Your task to perform on an android device: turn notification dots off Image 0: 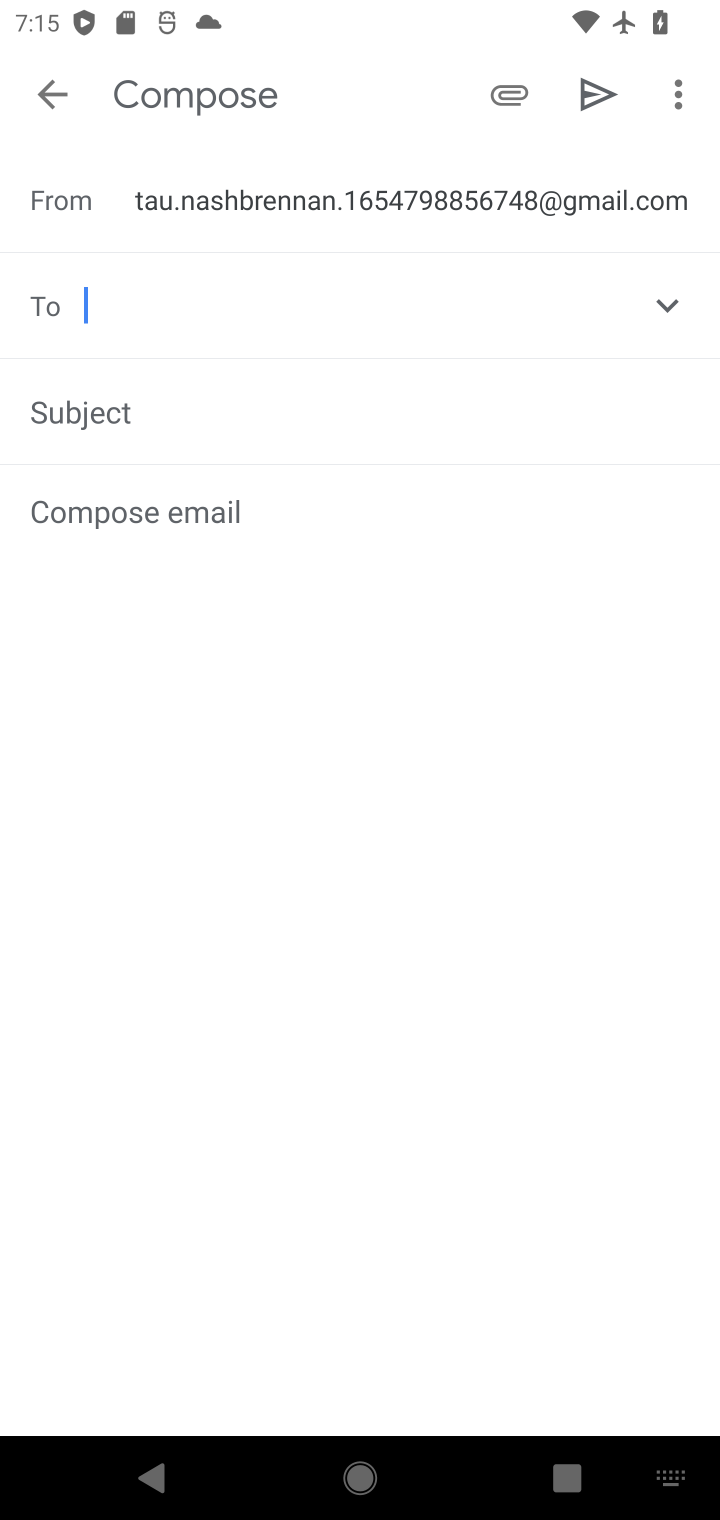
Step 0: press home button
Your task to perform on an android device: turn notification dots off Image 1: 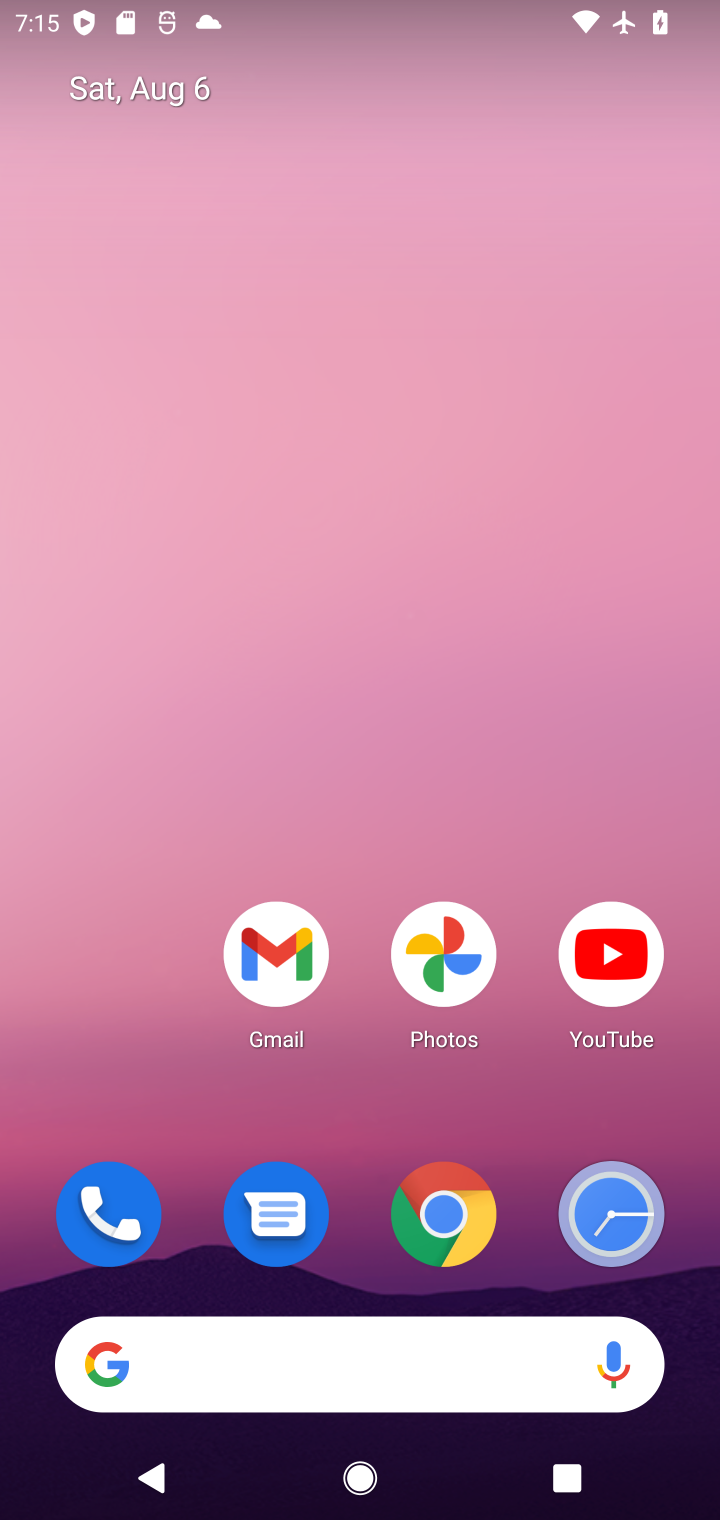
Step 1: drag from (367, 829) to (383, 191)
Your task to perform on an android device: turn notification dots off Image 2: 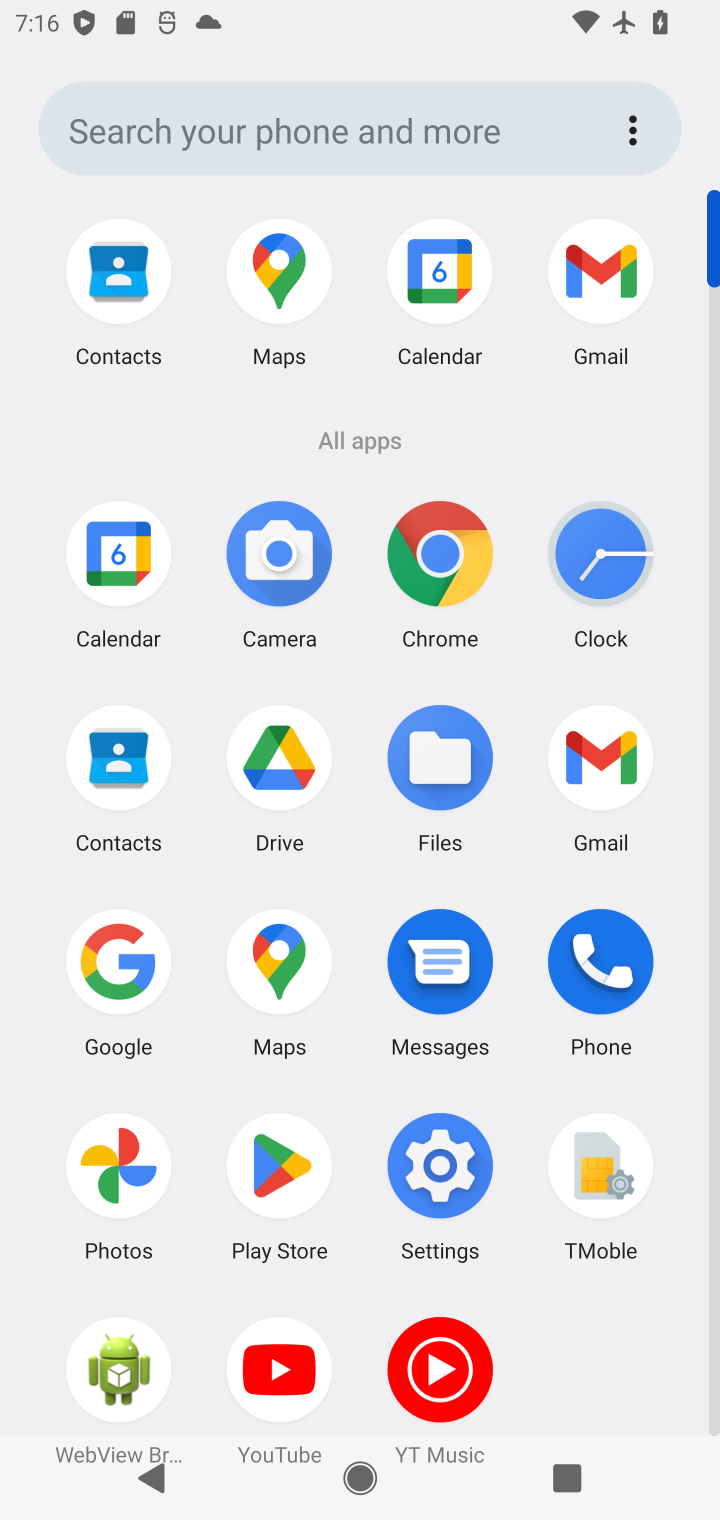
Step 2: click (440, 1159)
Your task to perform on an android device: turn notification dots off Image 3: 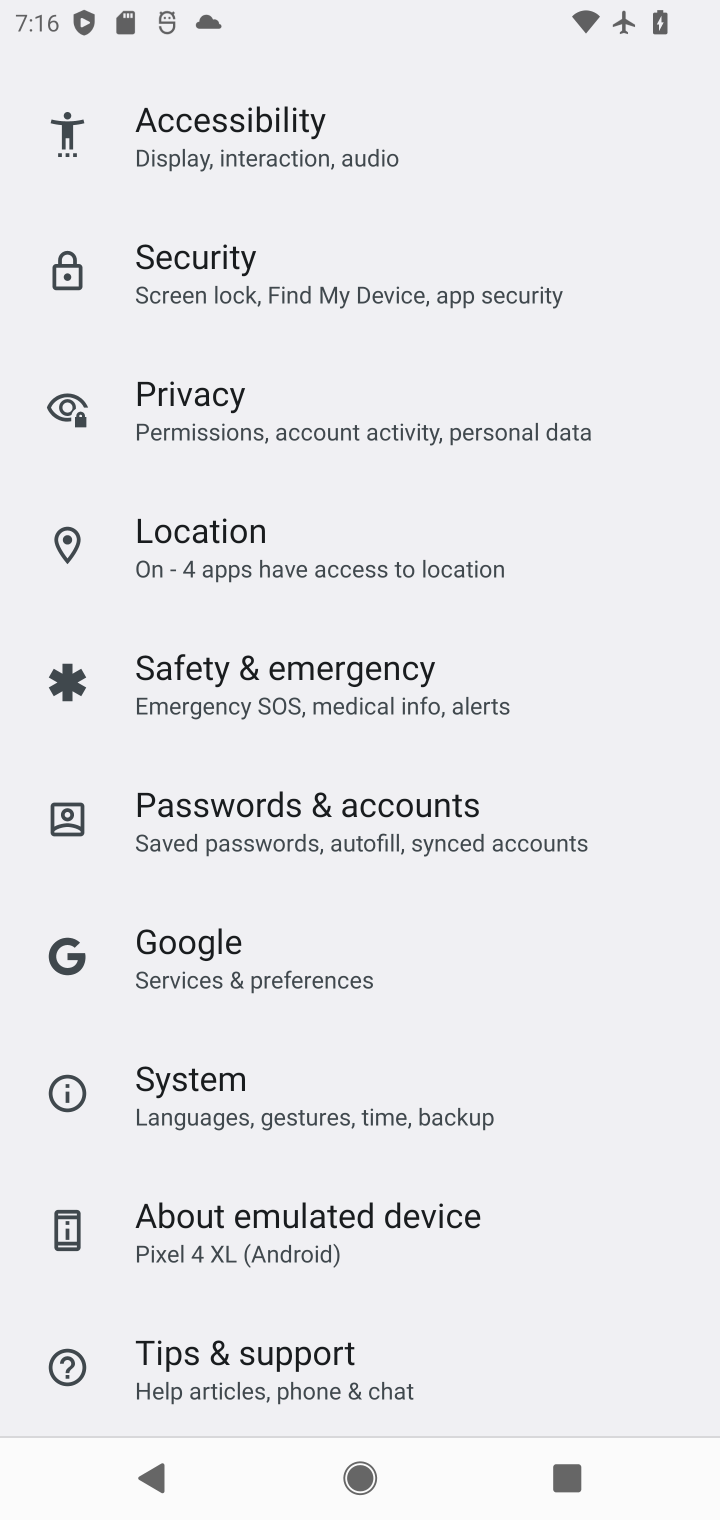
Step 3: drag from (271, 323) to (237, 1068)
Your task to perform on an android device: turn notification dots off Image 4: 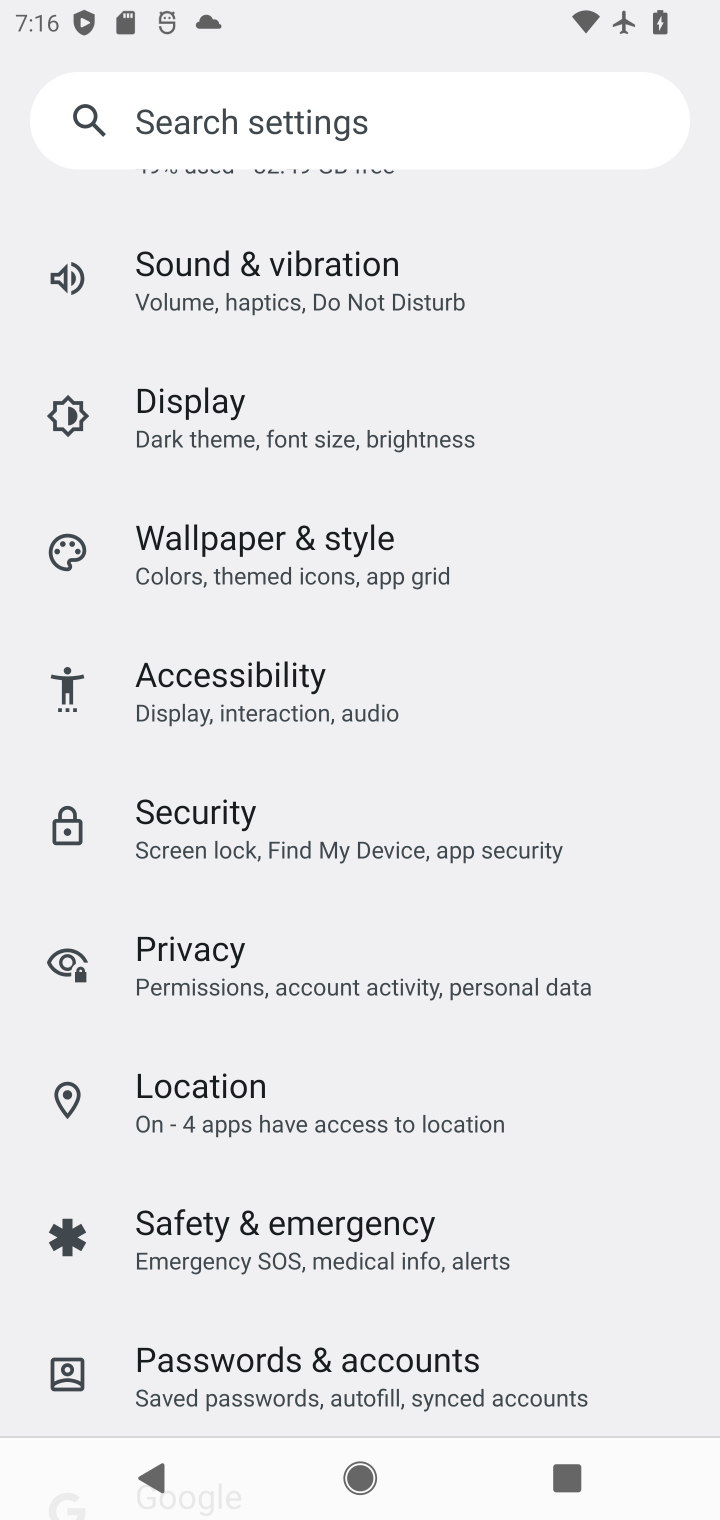
Step 4: drag from (322, 417) to (323, 1394)
Your task to perform on an android device: turn notification dots off Image 5: 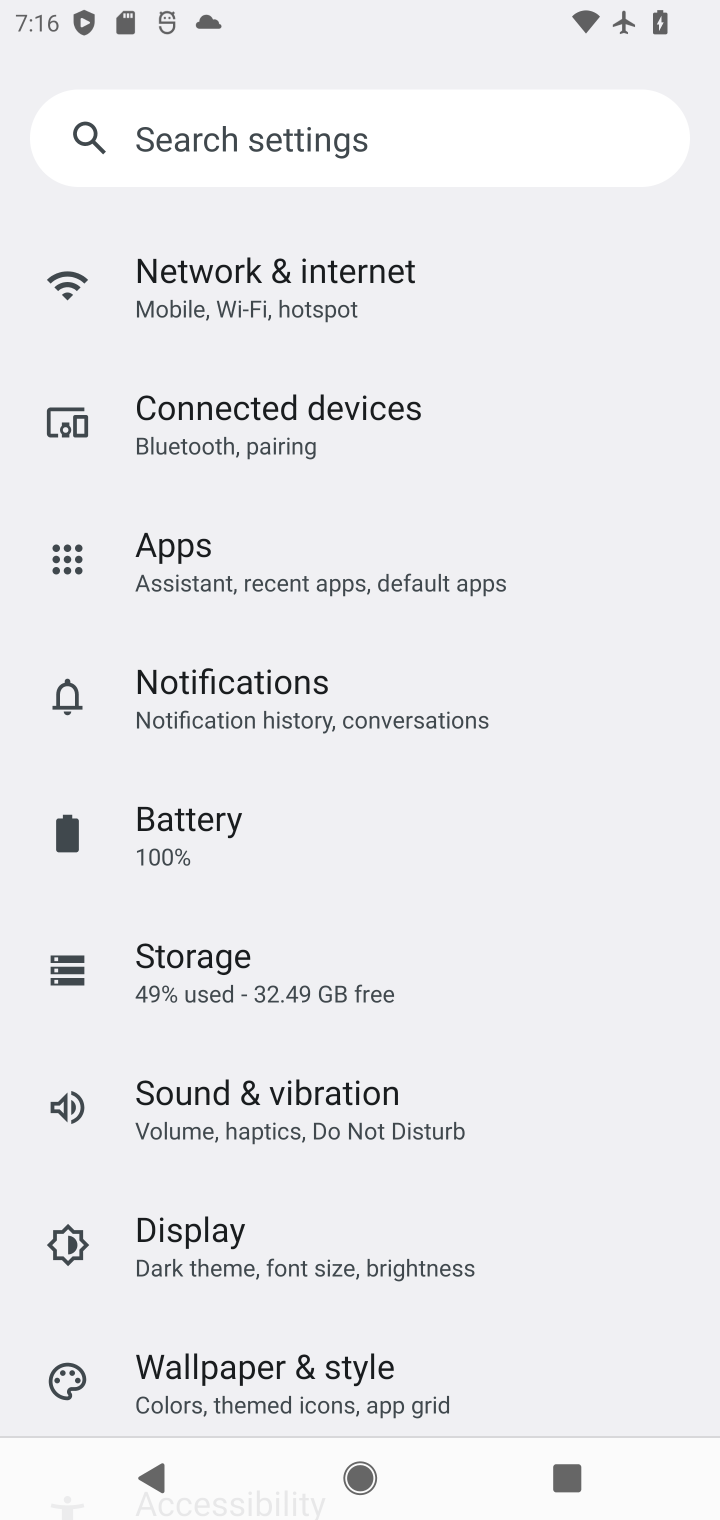
Step 5: click (264, 703)
Your task to perform on an android device: turn notification dots off Image 6: 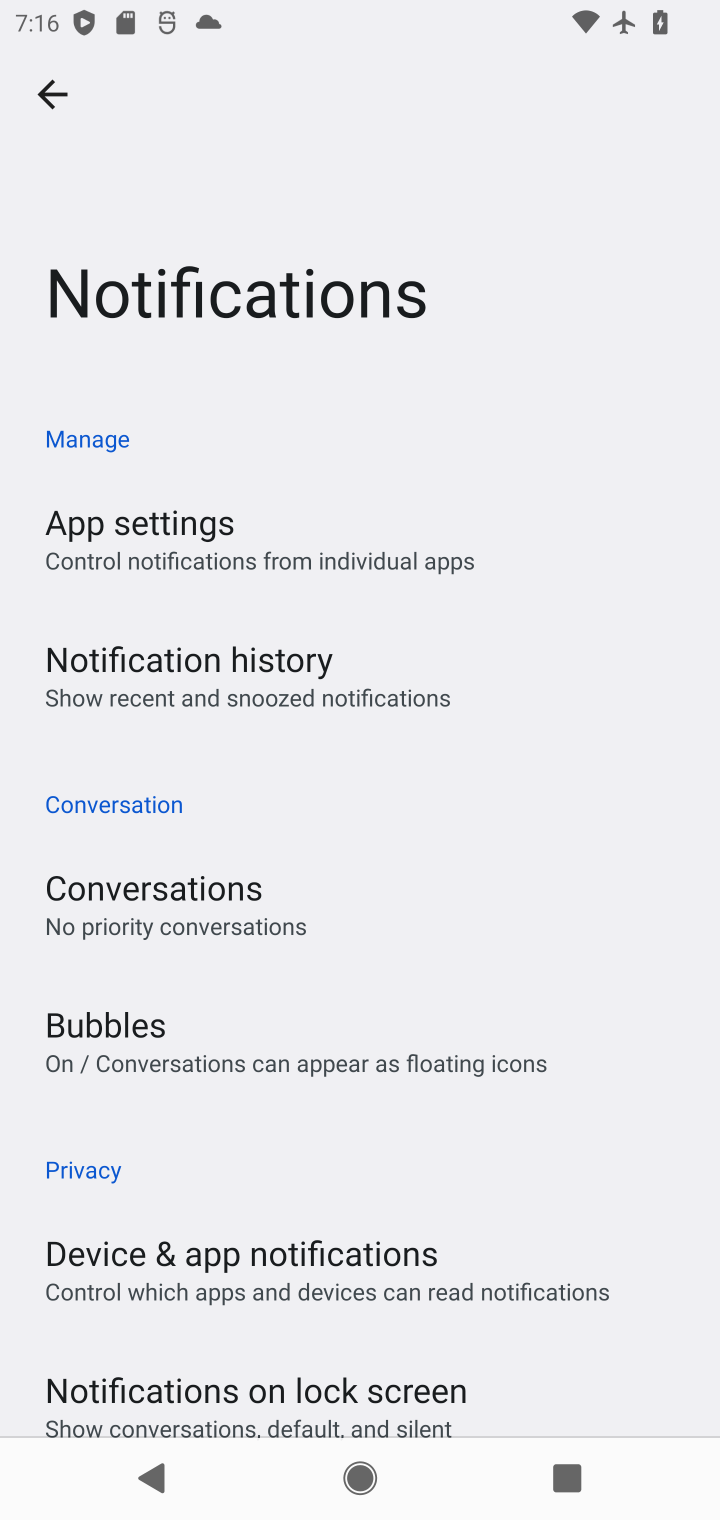
Step 6: task complete